Your task to perform on an android device: Search for seafood restaurants on Google Maps Image 0: 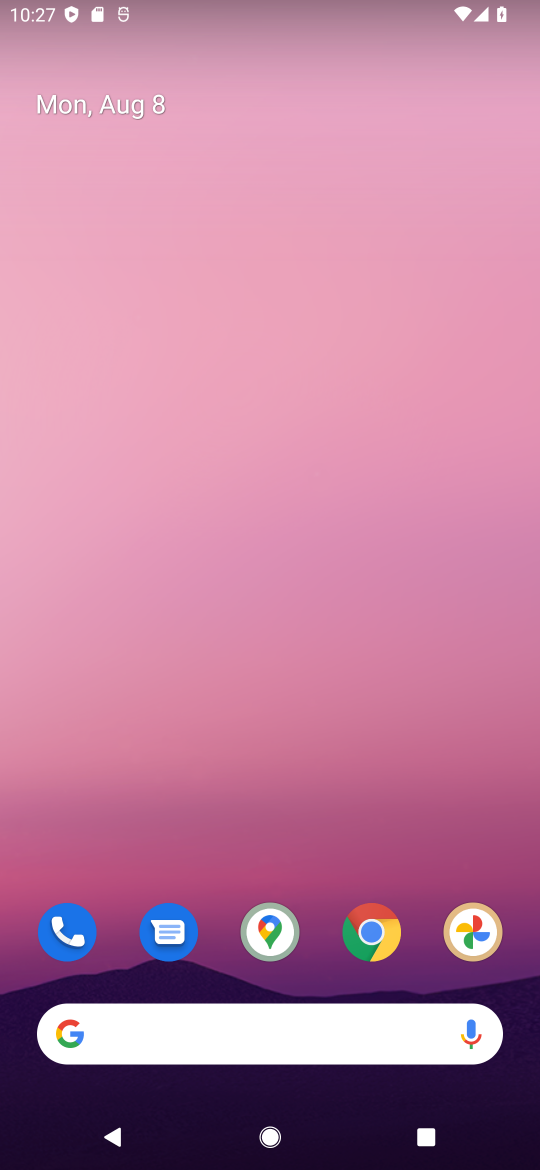
Step 0: click (273, 958)
Your task to perform on an android device: Search for seafood restaurants on Google Maps Image 1: 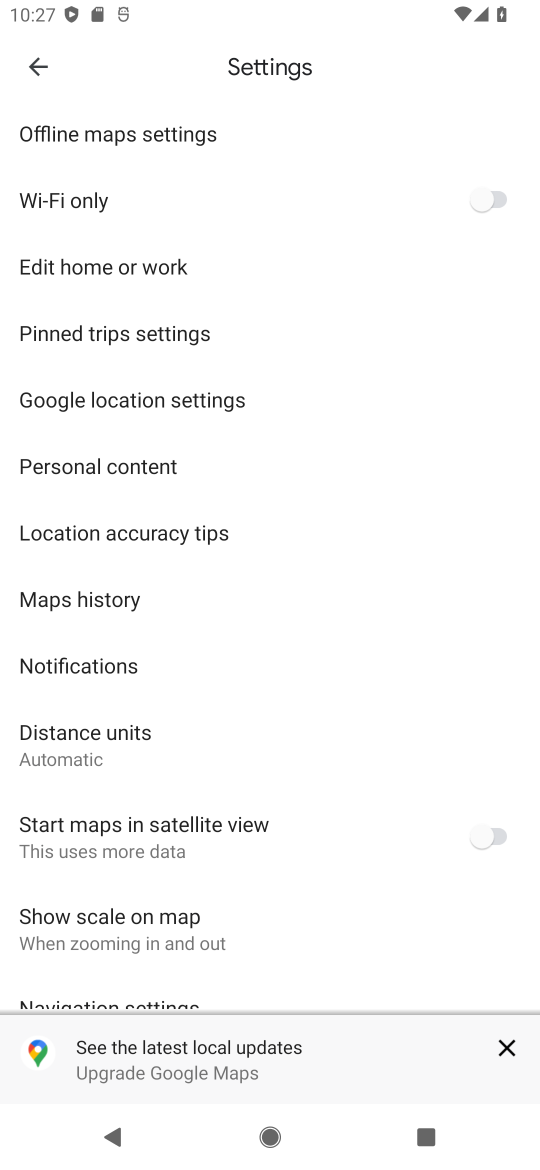
Step 1: click (51, 68)
Your task to perform on an android device: Search for seafood restaurants on Google Maps Image 2: 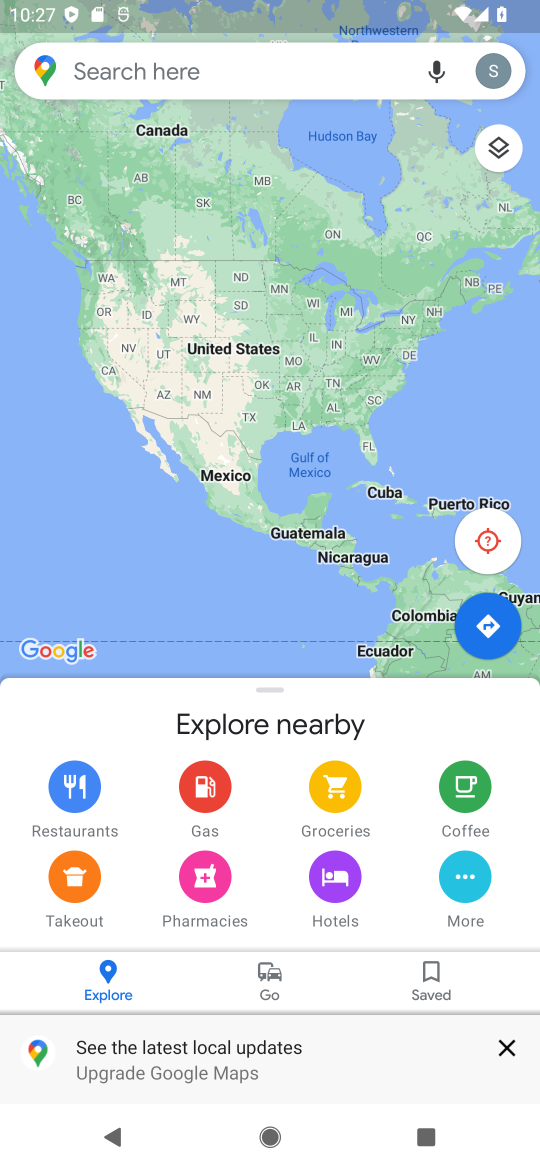
Step 2: click (143, 58)
Your task to perform on an android device: Search for seafood restaurants on Google Maps Image 3: 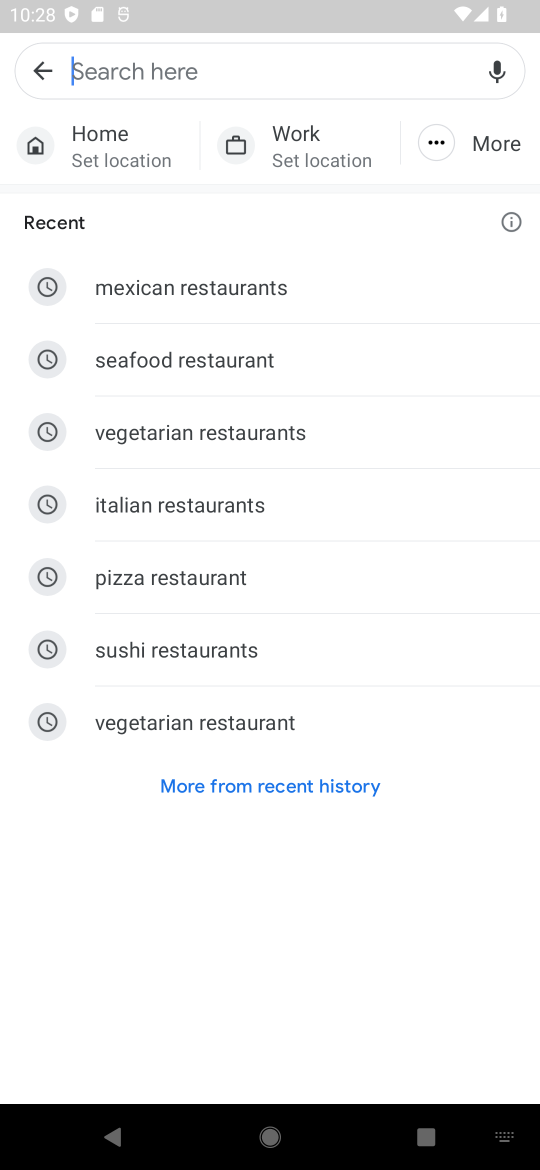
Step 3: click (111, 350)
Your task to perform on an android device: Search for seafood restaurants on Google Maps Image 4: 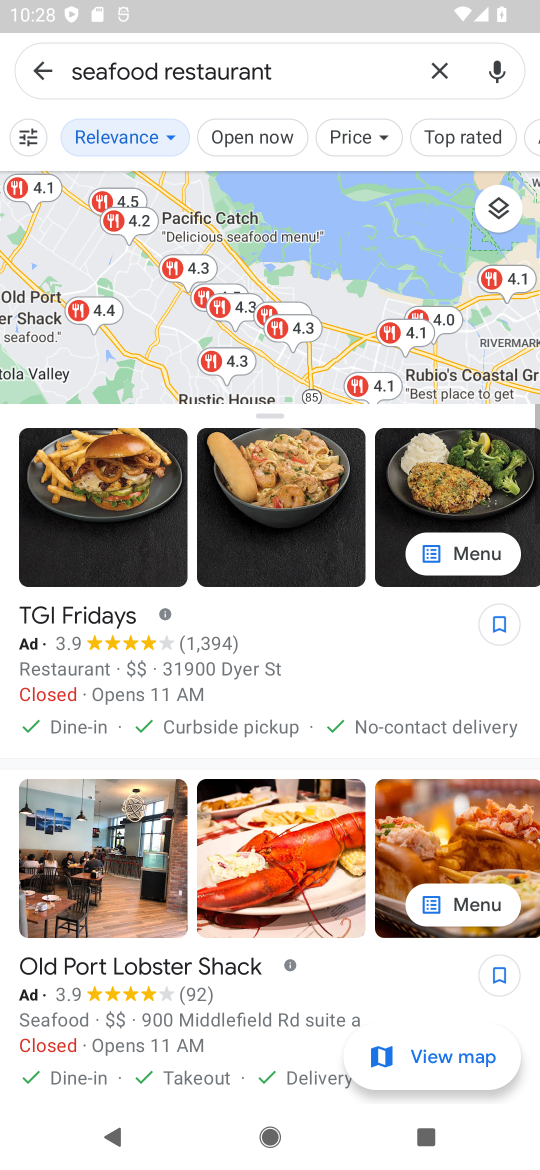
Step 4: task complete